Your task to perform on an android device: Show me recent news Image 0: 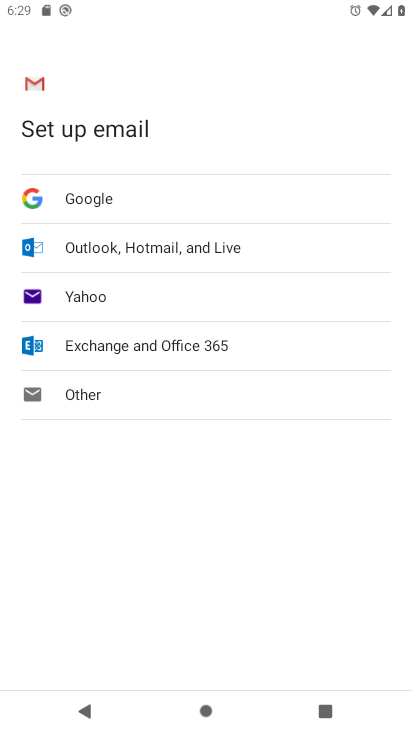
Step 0: press home button
Your task to perform on an android device: Show me recent news Image 1: 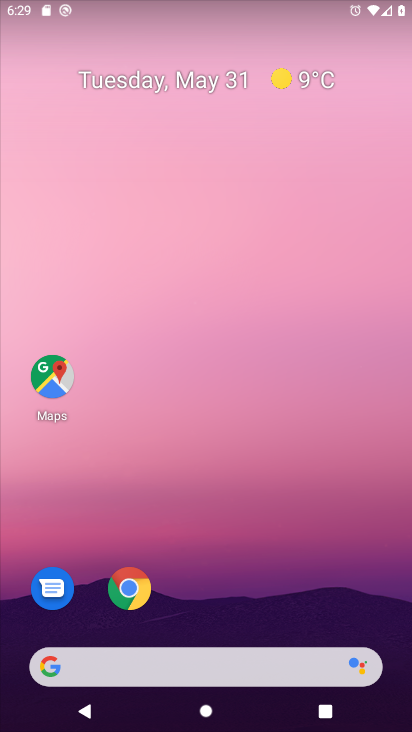
Step 1: click (167, 660)
Your task to perform on an android device: Show me recent news Image 2: 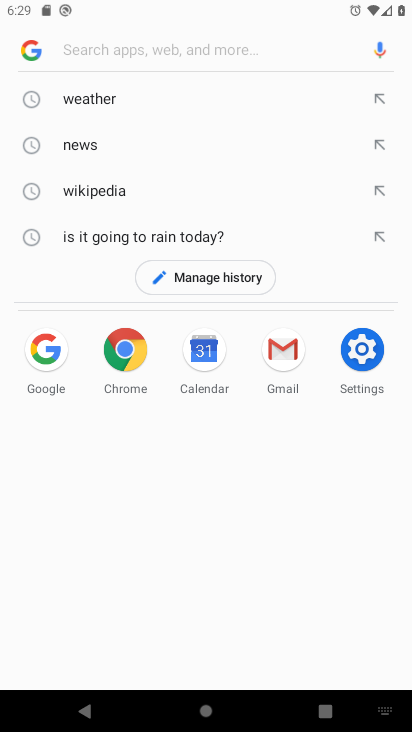
Step 2: click (161, 42)
Your task to perform on an android device: Show me recent news Image 3: 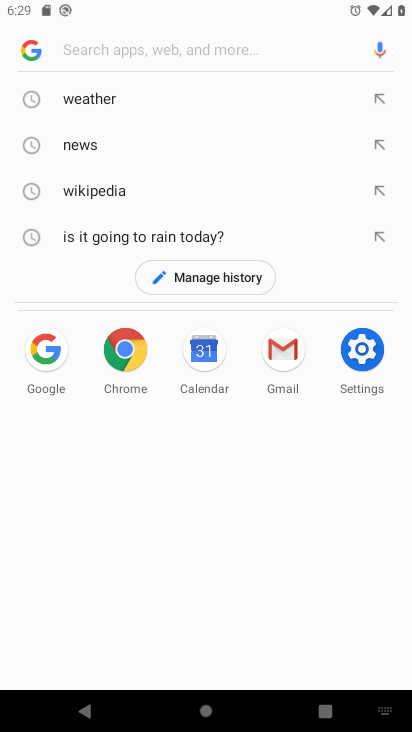
Step 3: type "recent news"
Your task to perform on an android device: Show me recent news Image 4: 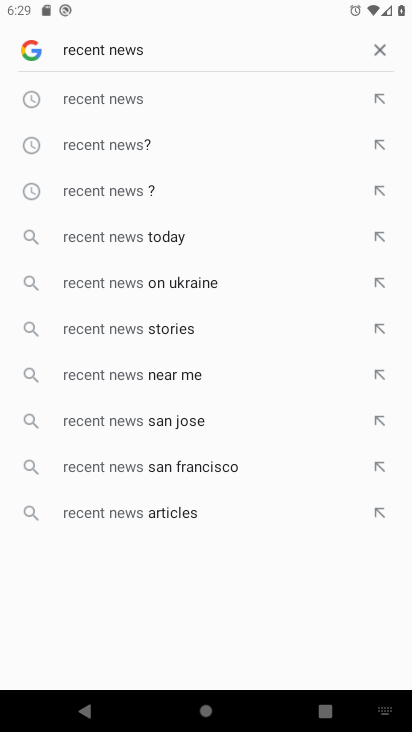
Step 4: click (123, 108)
Your task to perform on an android device: Show me recent news Image 5: 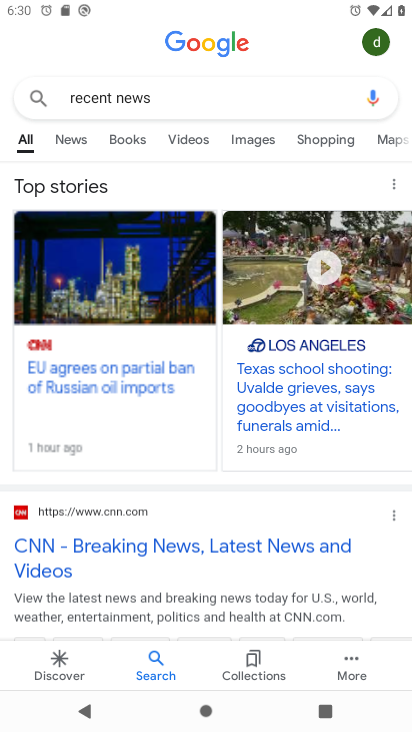
Step 5: task complete